Your task to perform on an android device: Search for the best-rated coffee table on Crate & Barrel Image 0: 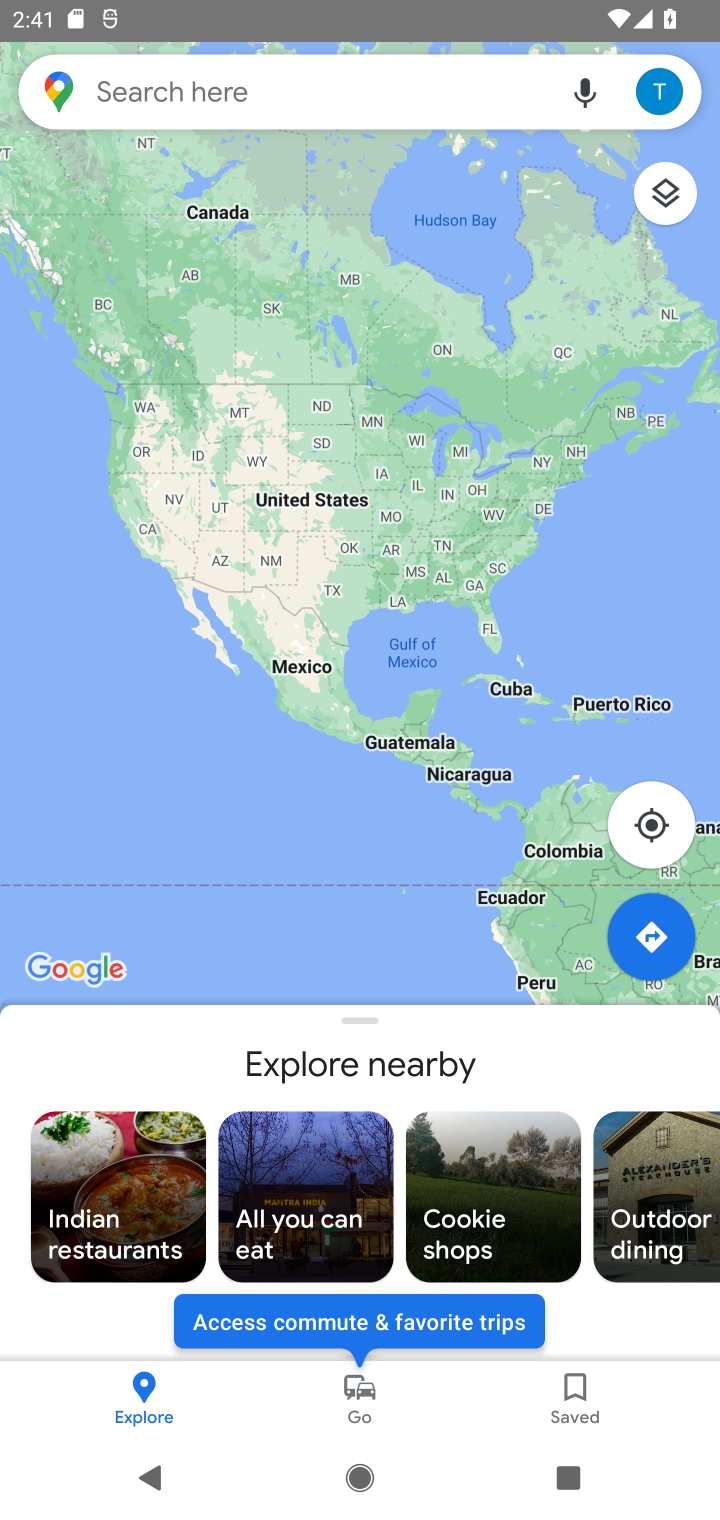
Step 0: press home button
Your task to perform on an android device: Search for the best-rated coffee table on Crate & Barrel Image 1: 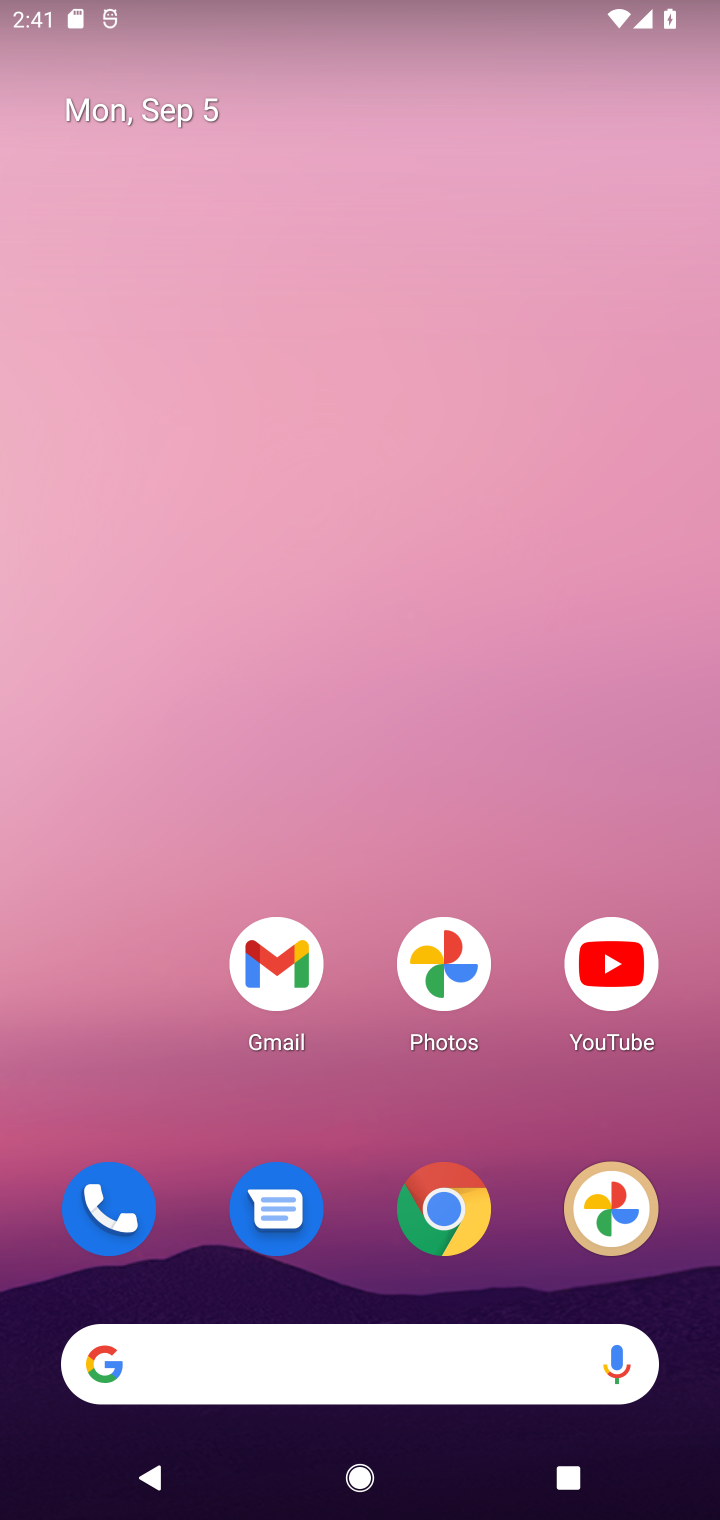
Step 1: drag from (333, 1228) to (333, 670)
Your task to perform on an android device: Search for the best-rated coffee table on Crate & Barrel Image 2: 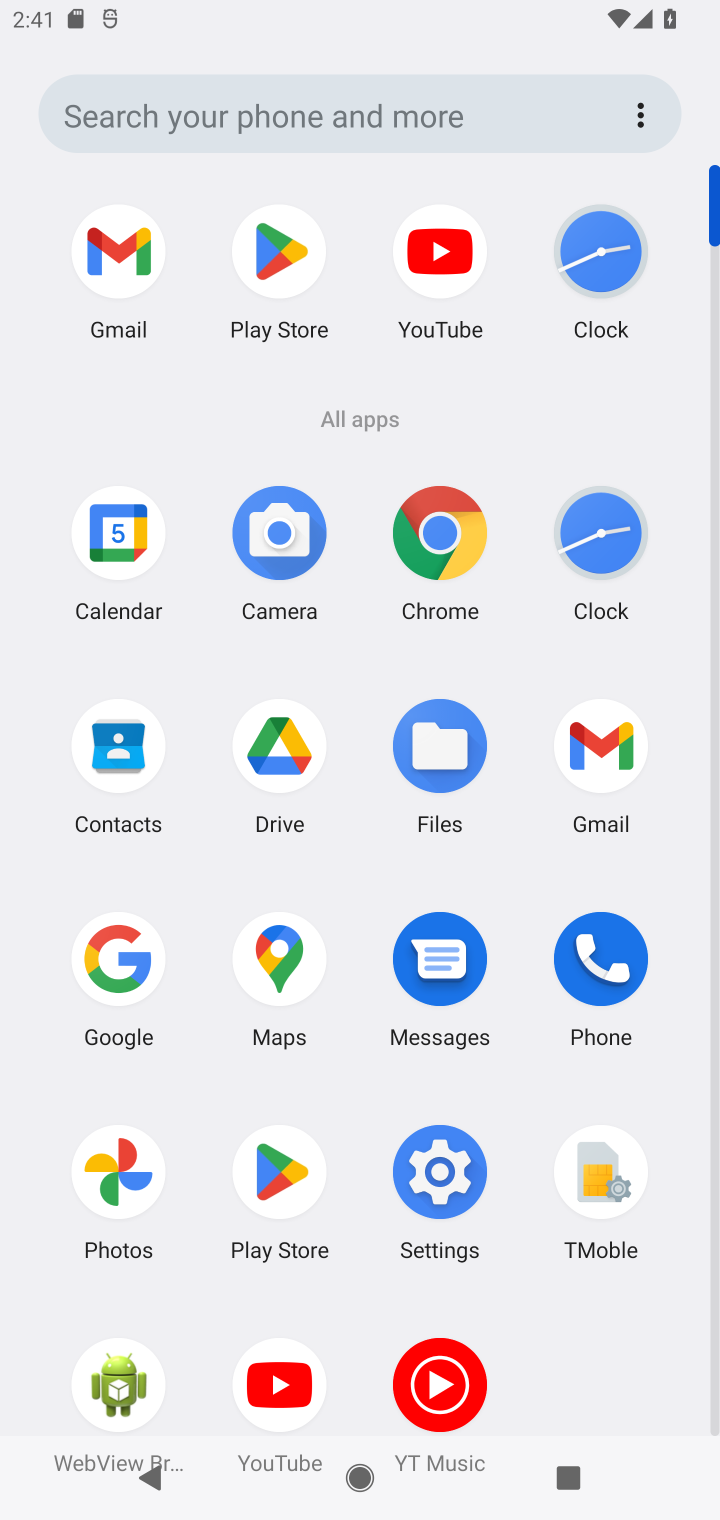
Step 2: click (109, 1072)
Your task to perform on an android device: Search for the best-rated coffee table on Crate & Barrel Image 3: 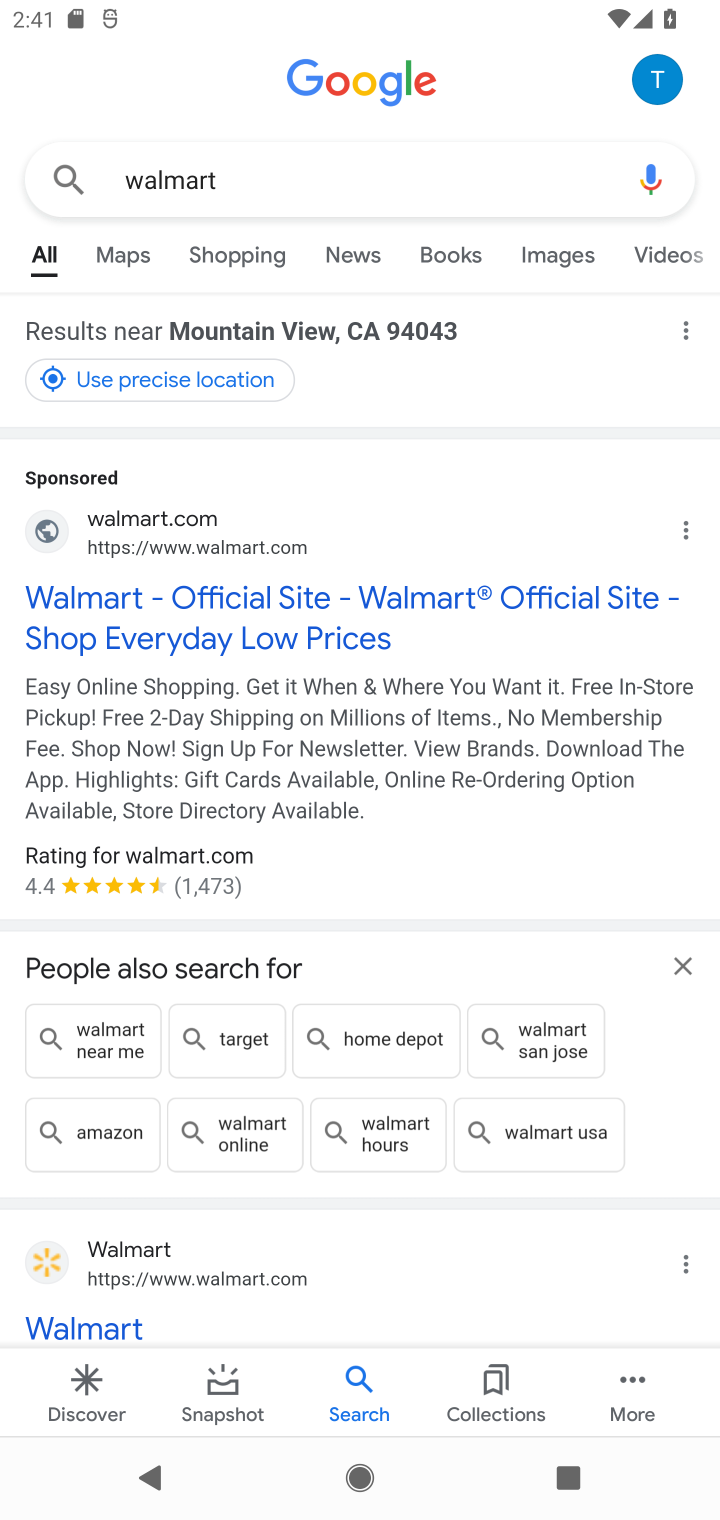
Step 3: click (457, 193)
Your task to perform on an android device: Search for the best-rated coffee table on Crate & Barrel Image 4: 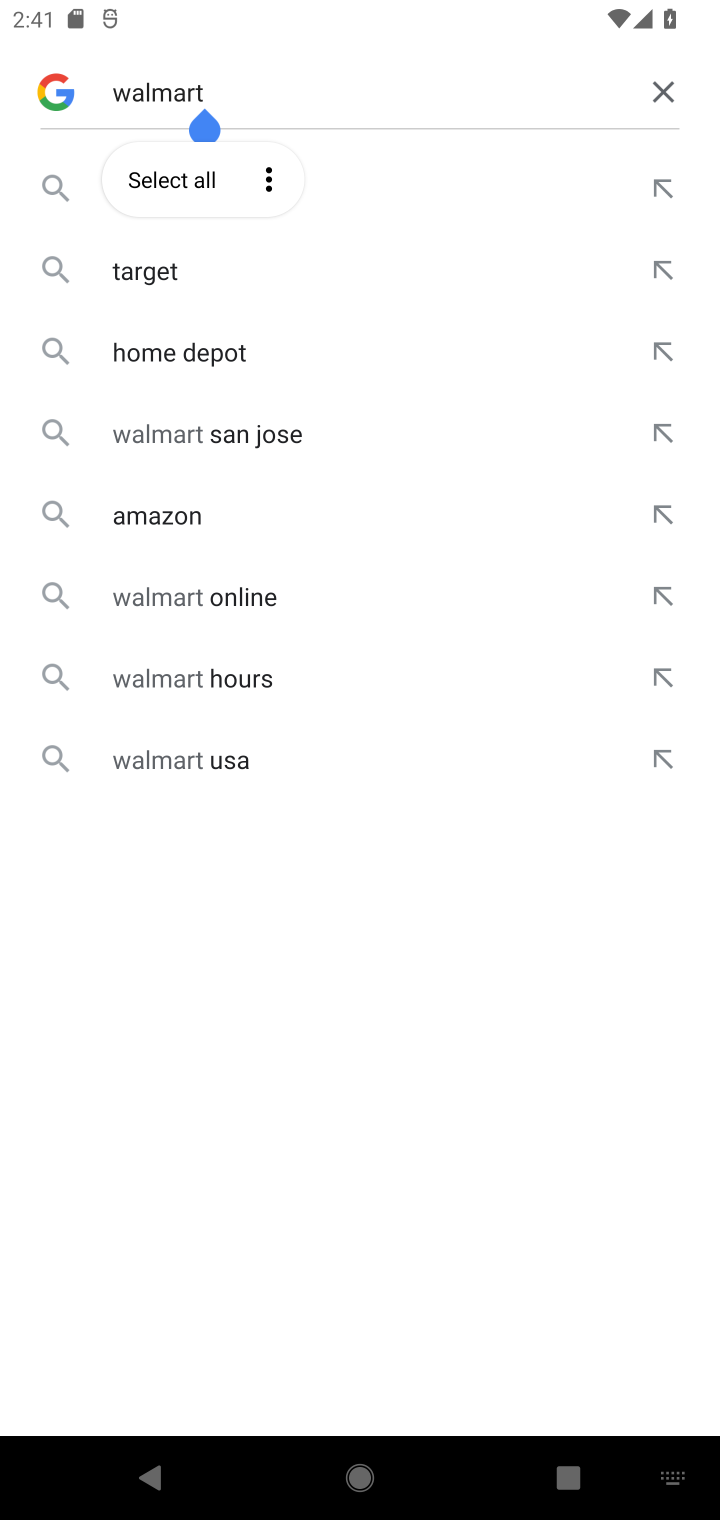
Step 4: click (661, 97)
Your task to perform on an android device: Search for the best-rated coffee table on Crate & Barrel Image 5: 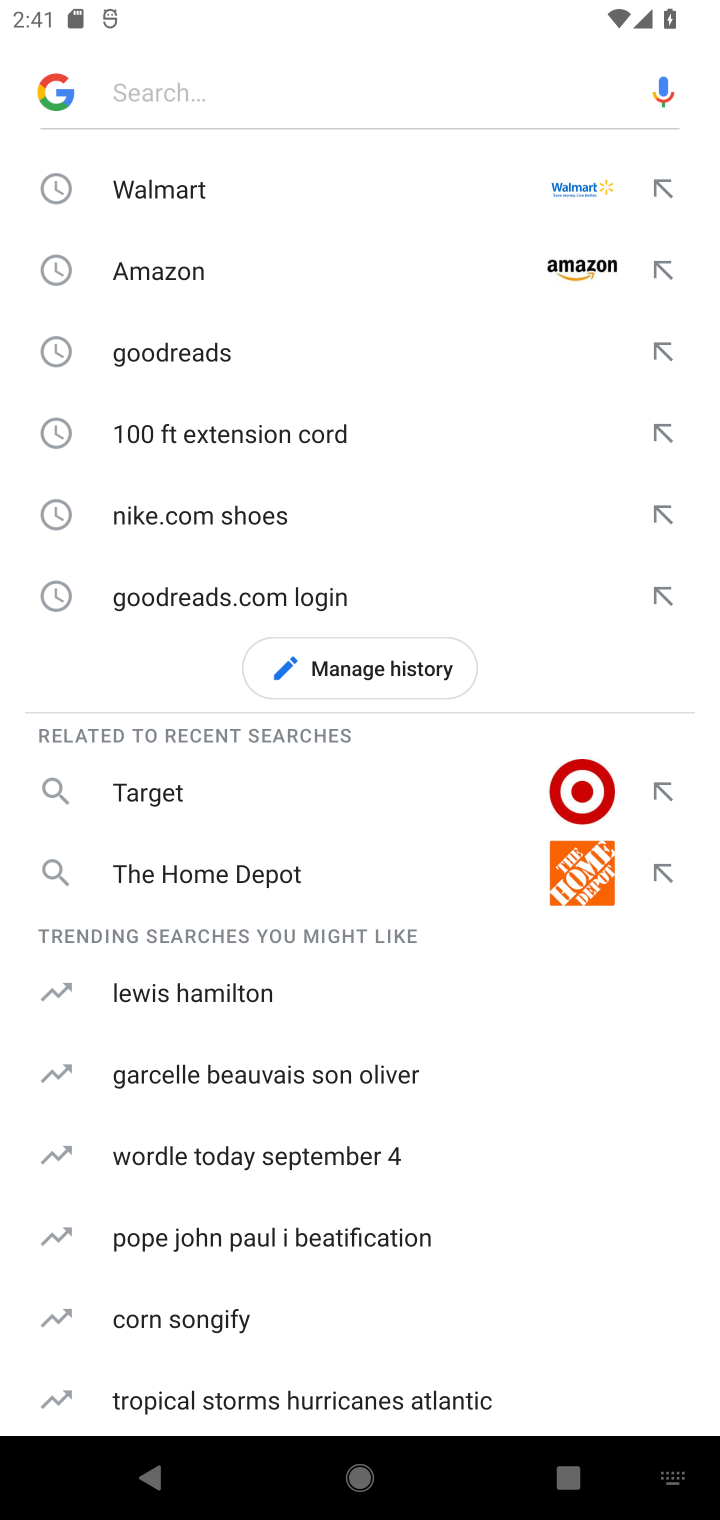
Step 5: type "Crate & Barrel"
Your task to perform on an android device: Search for the best-rated coffee table on Crate & Barrel Image 6: 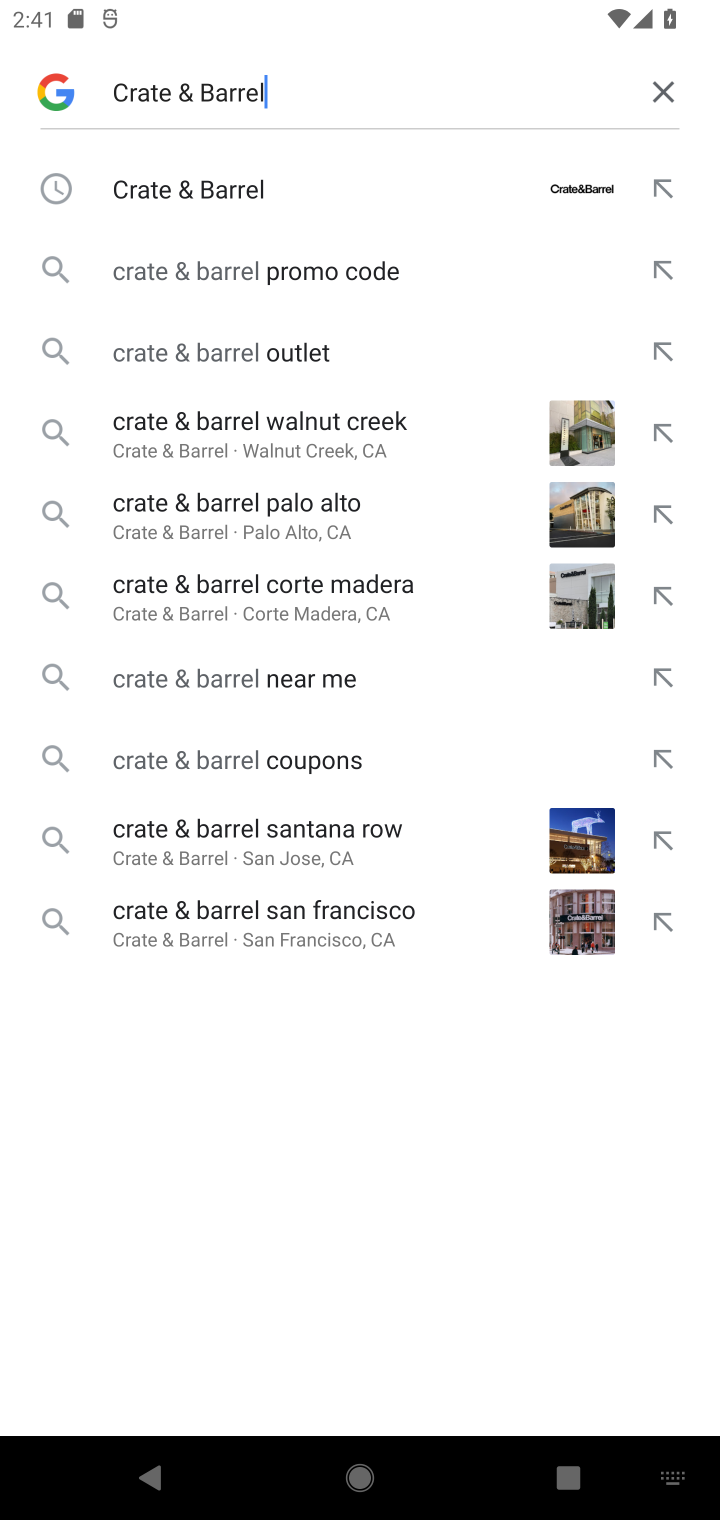
Step 6: click (208, 194)
Your task to perform on an android device: Search for the best-rated coffee table on Crate & Barrel Image 7: 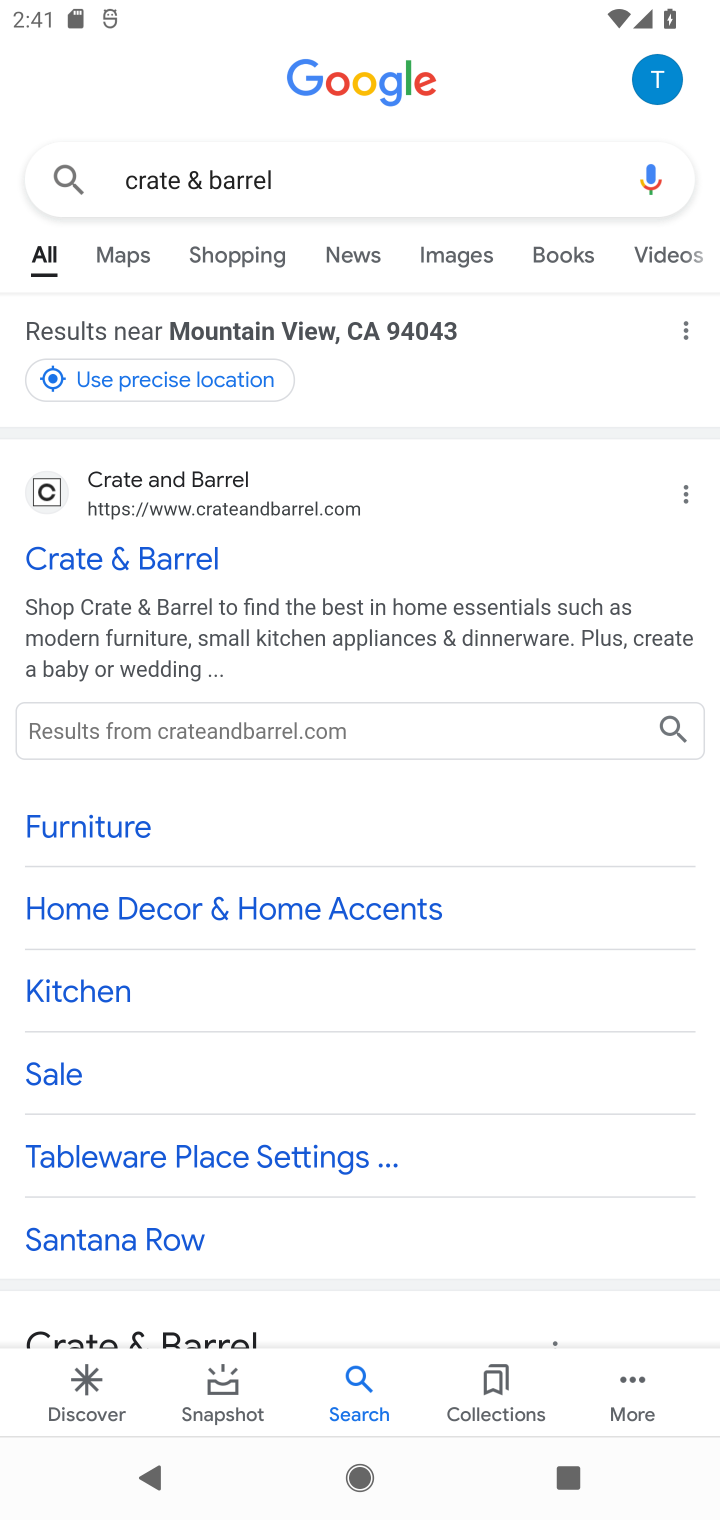
Step 7: click (128, 565)
Your task to perform on an android device: Search for the best-rated coffee table on Crate & Barrel Image 8: 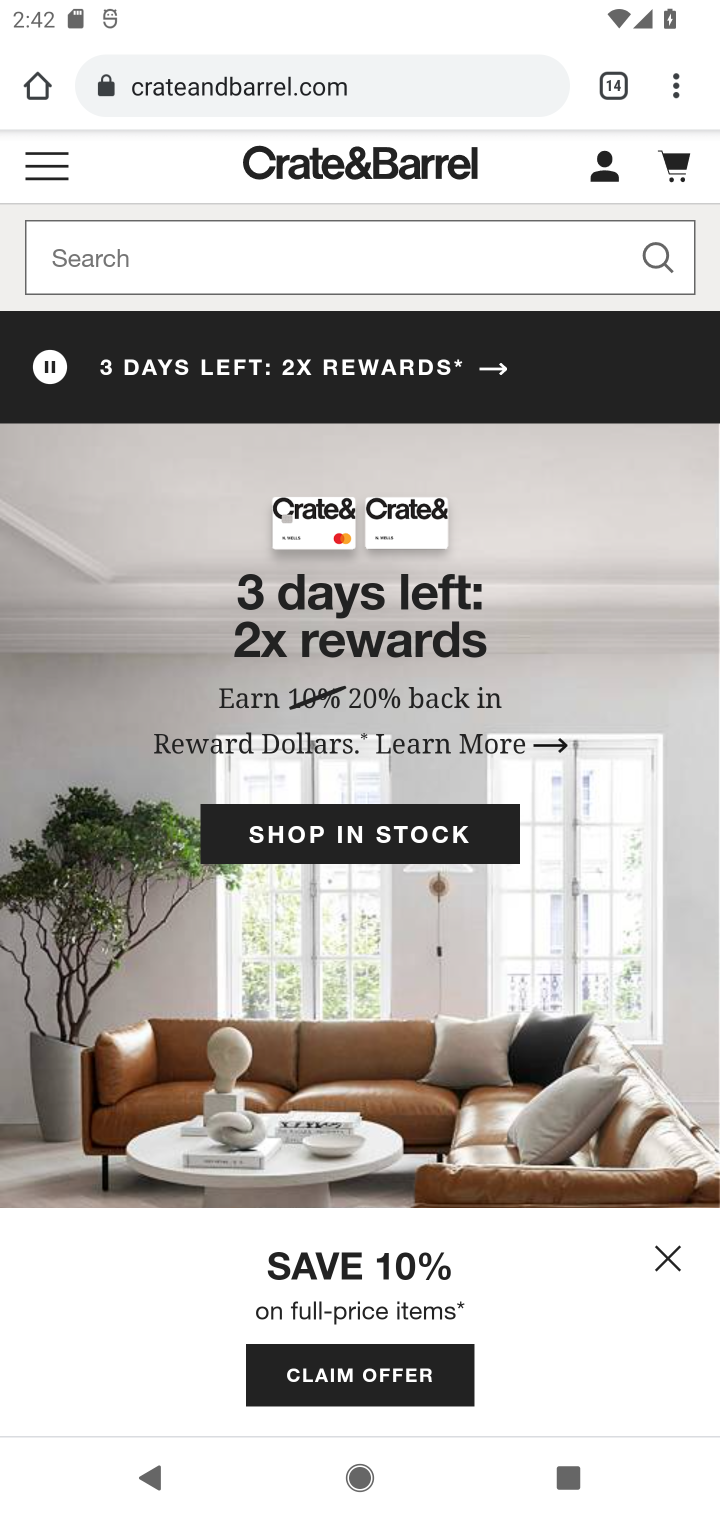
Step 8: click (105, 264)
Your task to perform on an android device: Search for the best-rated coffee table on Crate & Barrel Image 9: 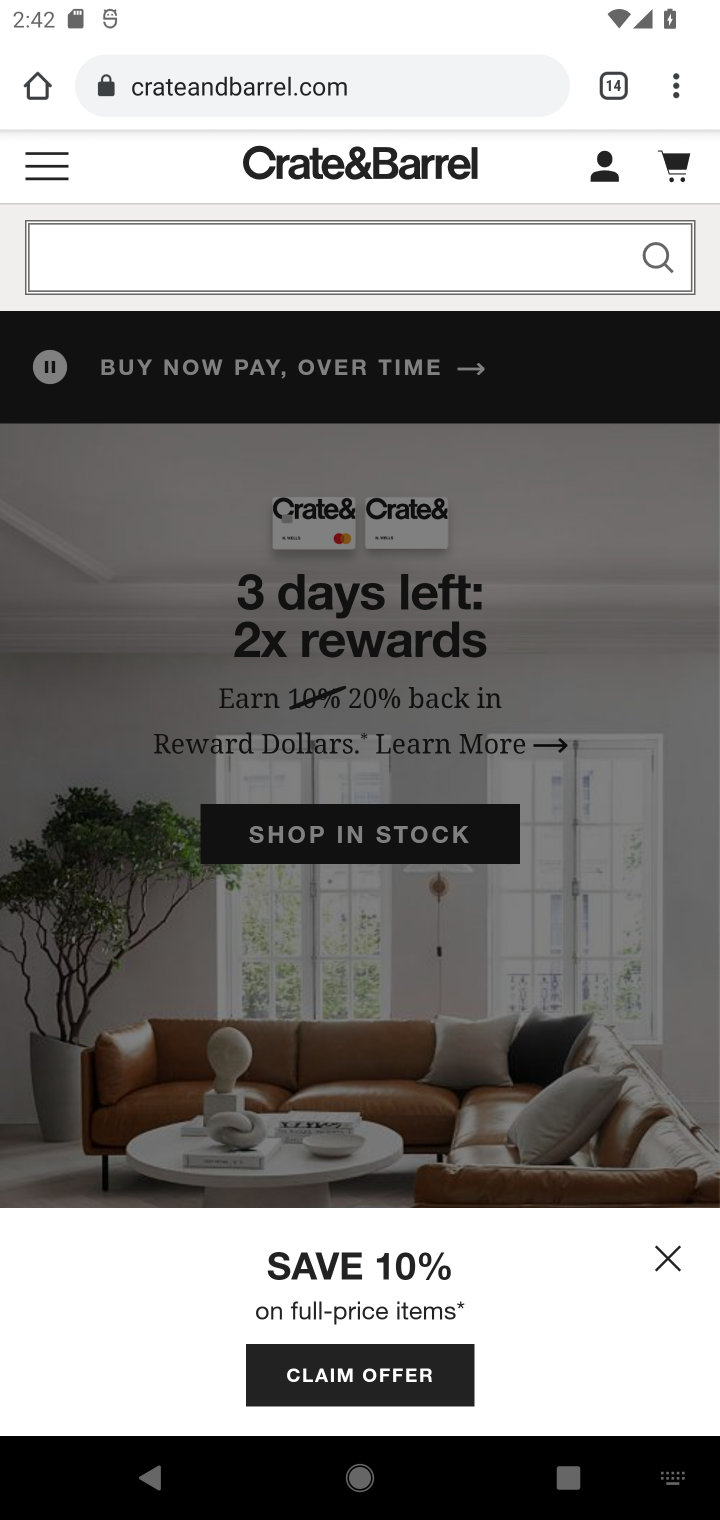
Step 9: type "best-rated coffee table"
Your task to perform on an android device: Search for the best-rated coffee table on Crate & Barrel Image 10: 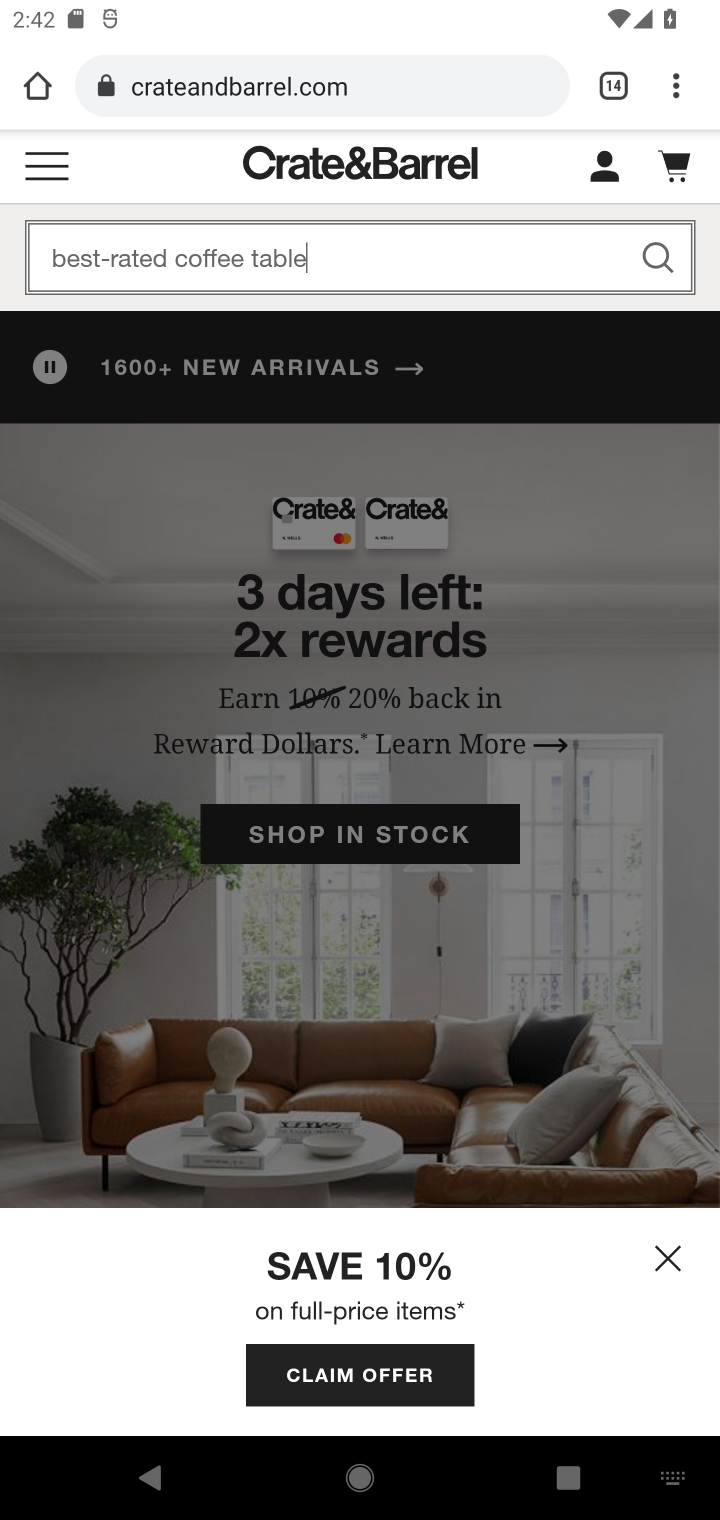
Step 10: click (648, 250)
Your task to perform on an android device: Search for the best-rated coffee table on Crate & Barrel Image 11: 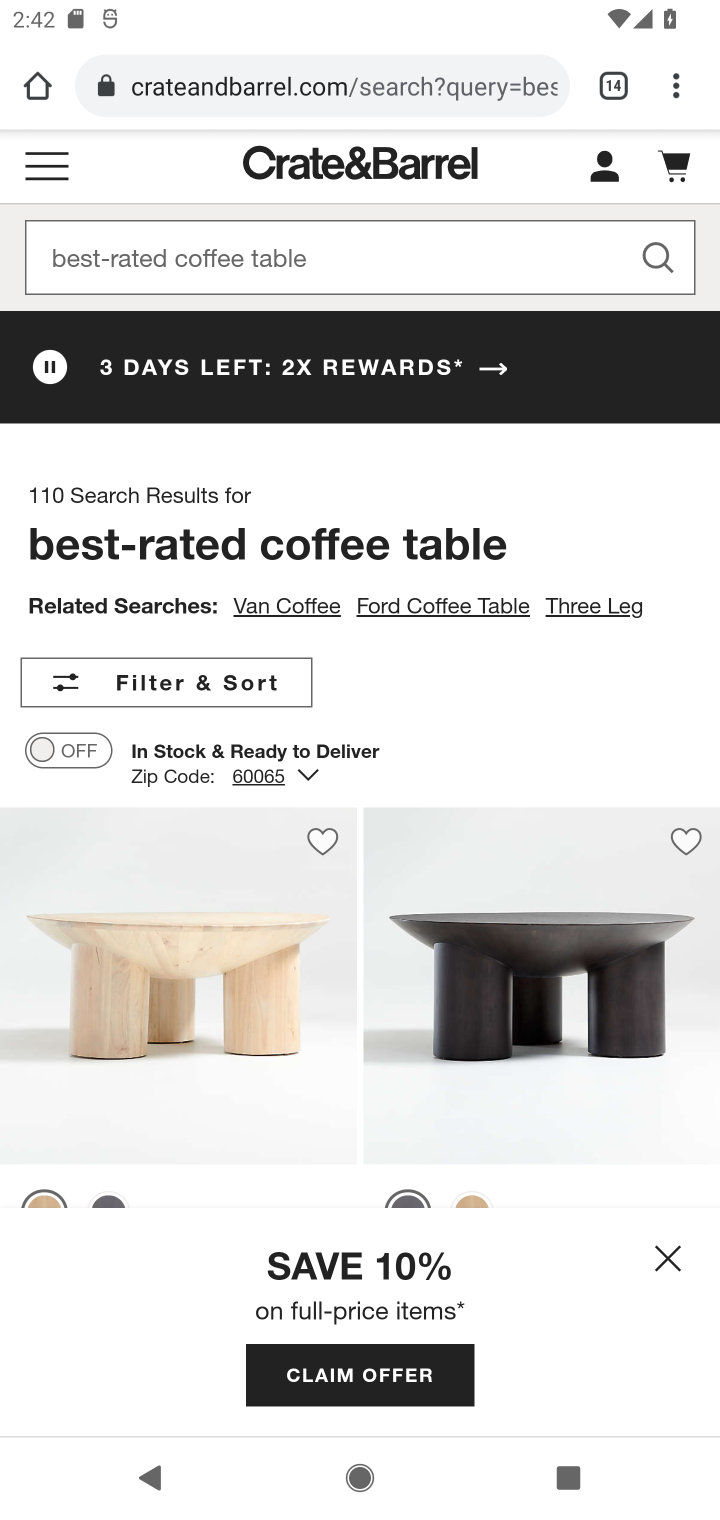
Step 11: drag from (556, 1166) to (556, 533)
Your task to perform on an android device: Search for the best-rated coffee table on Crate & Barrel Image 12: 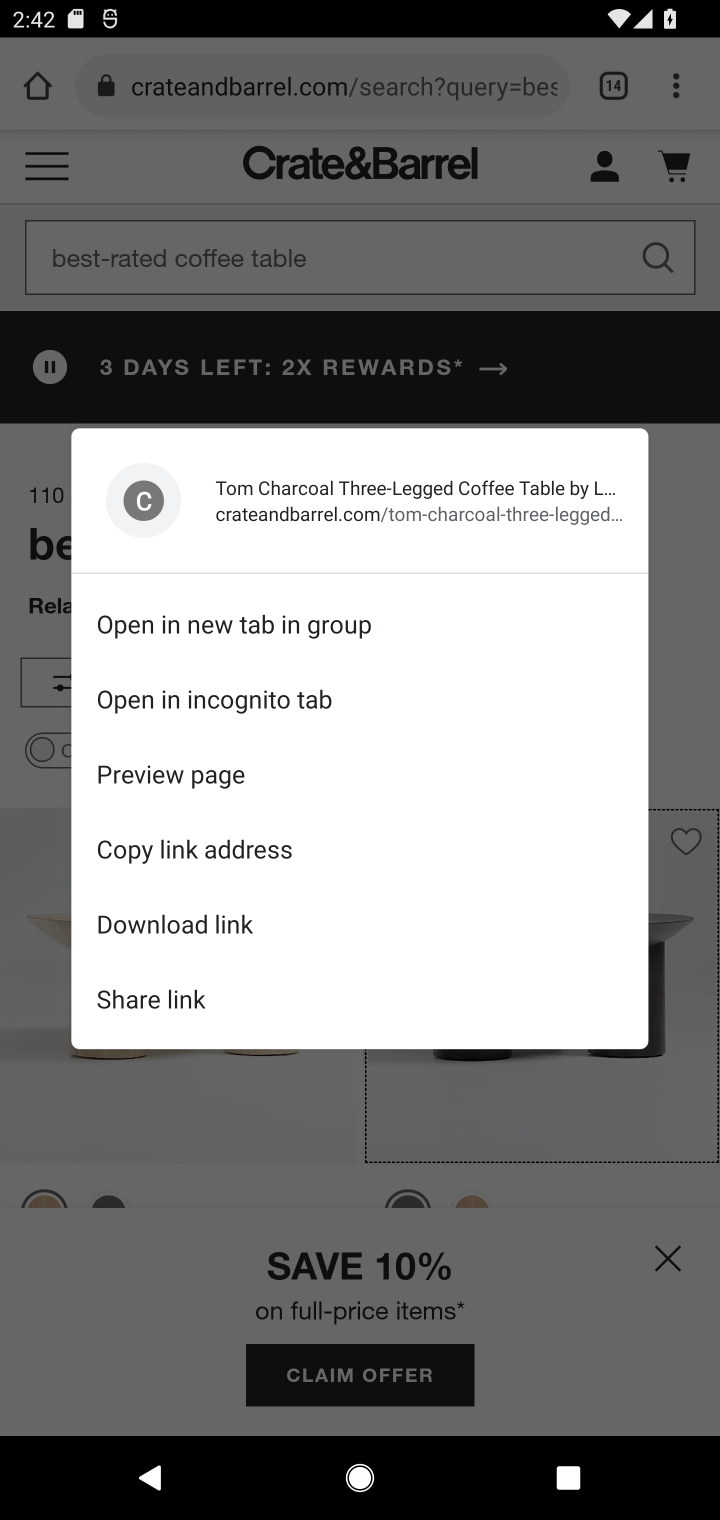
Step 12: click (573, 1061)
Your task to perform on an android device: Search for the best-rated coffee table on Crate & Barrel Image 13: 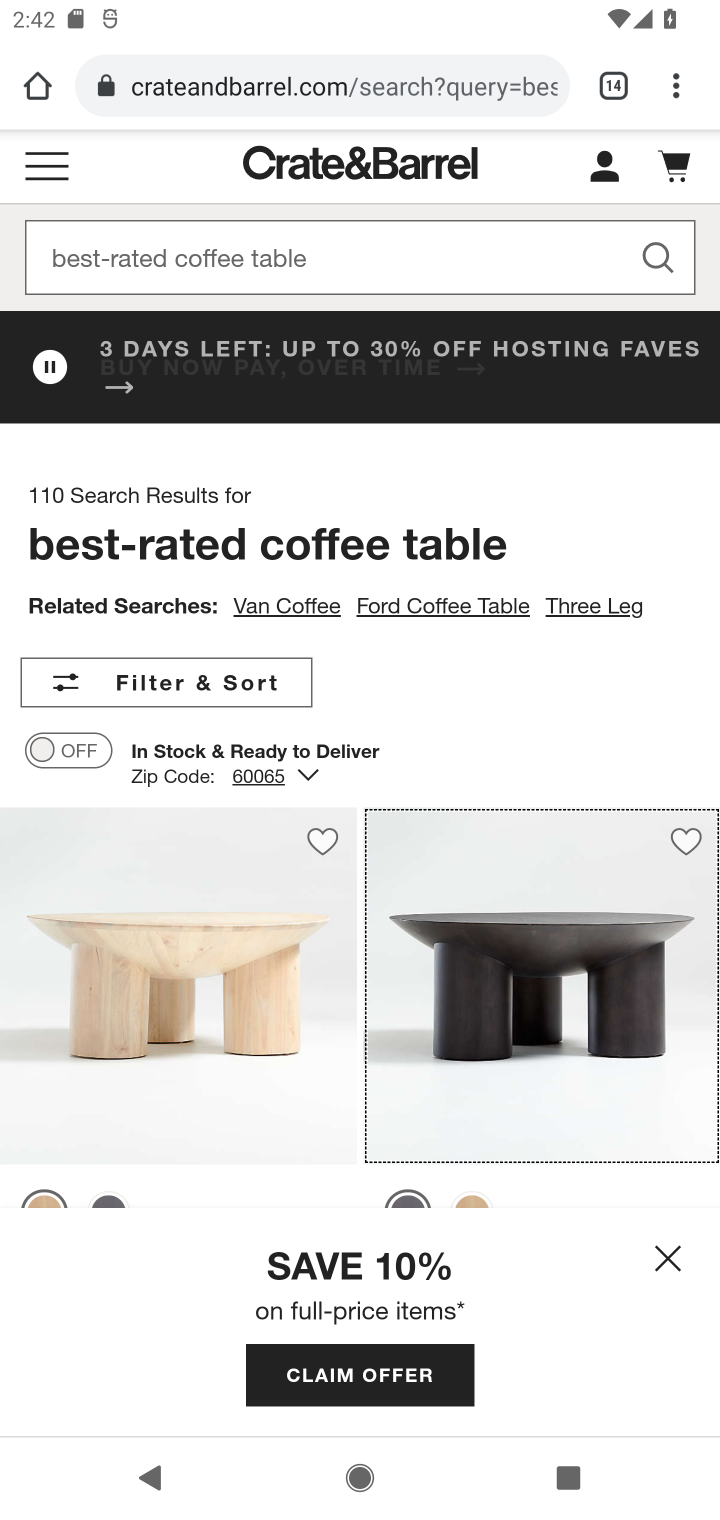
Step 13: task complete